Your task to perform on an android device: change the upload size in google photos Image 0: 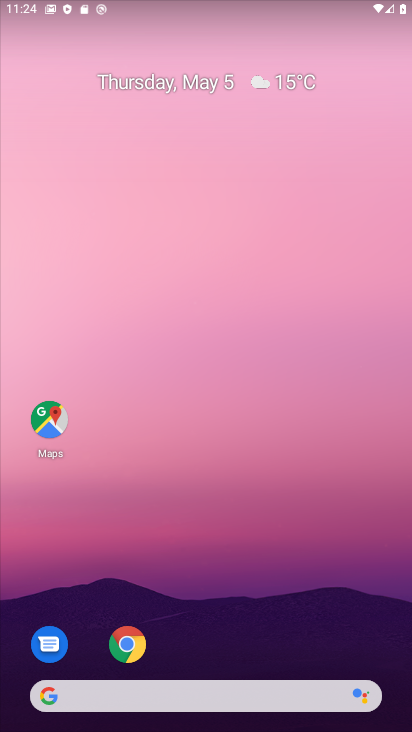
Step 0: drag from (186, 619) to (265, 47)
Your task to perform on an android device: change the upload size in google photos Image 1: 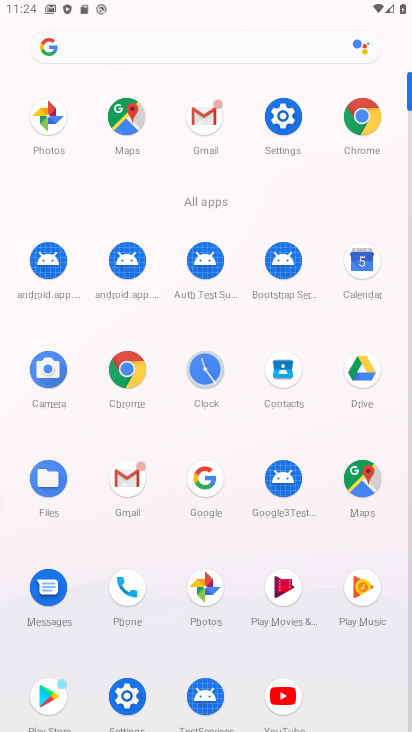
Step 1: click (59, 128)
Your task to perform on an android device: change the upload size in google photos Image 2: 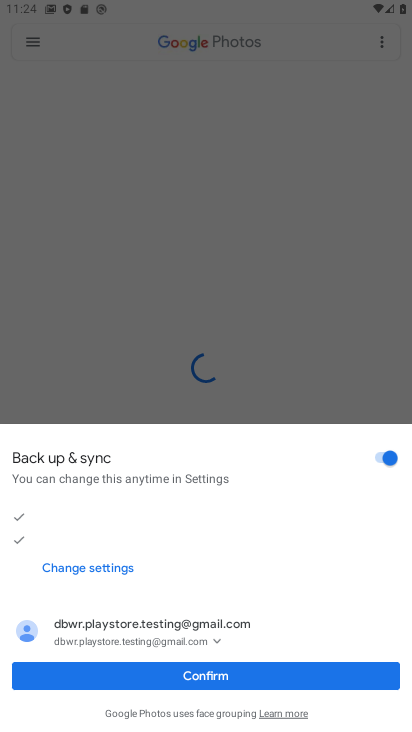
Step 2: click (33, 42)
Your task to perform on an android device: change the upload size in google photos Image 3: 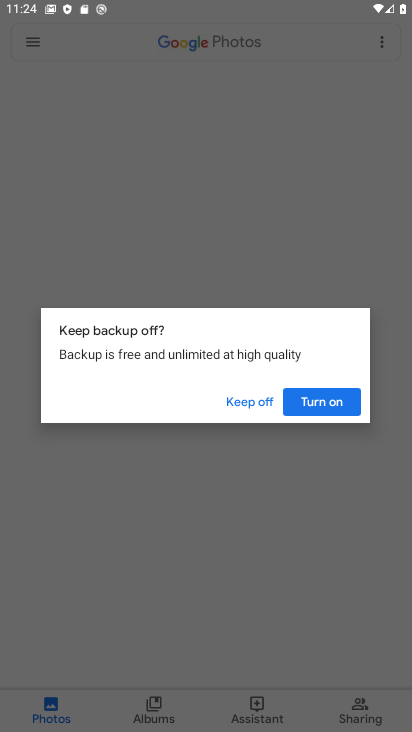
Step 3: click (327, 399)
Your task to perform on an android device: change the upload size in google photos Image 4: 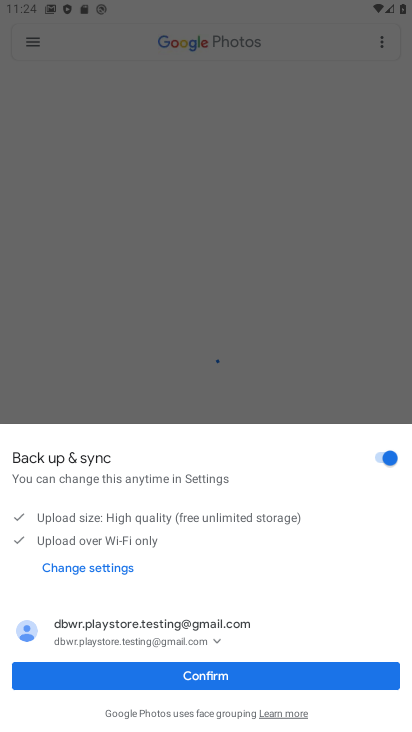
Step 4: click (180, 671)
Your task to perform on an android device: change the upload size in google photos Image 5: 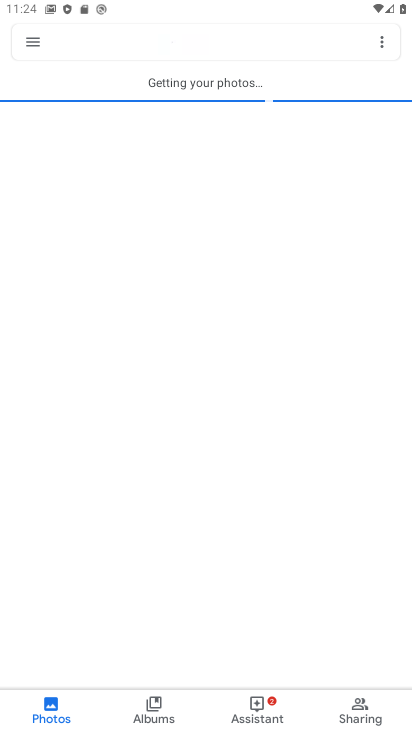
Step 5: click (35, 37)
Your task to perform on an android device: change the upload size in google photos Image 6: 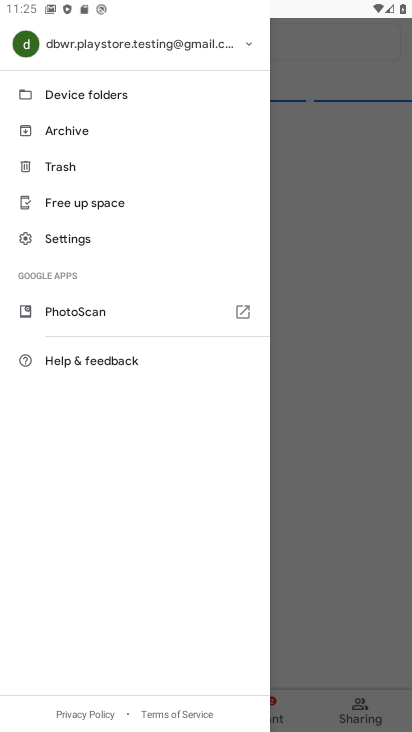
Step 6: click (80, 239)
Your task to perform on an android device: change the upload size in google photos Image 7: 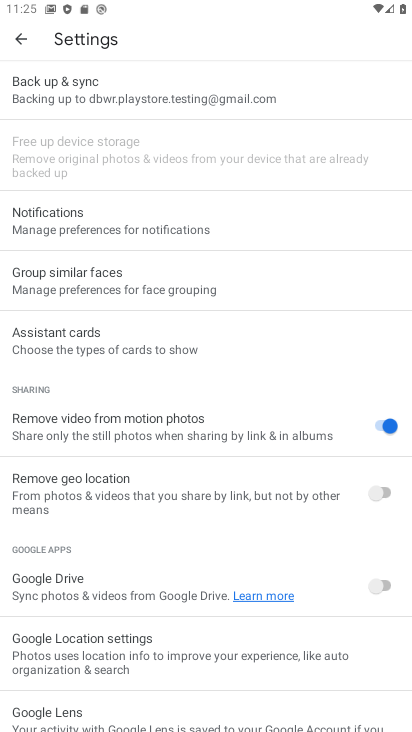
Step 7: click (189, 93)
Your task to perform on an android device: change the upload size in google photos Image 8: 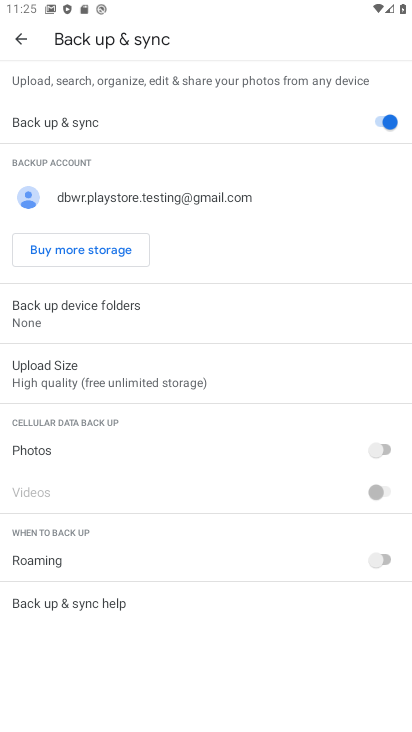
Step 8: click (91, 367)
Your task to perform on an android device: change the upload size in google photos Image 9: 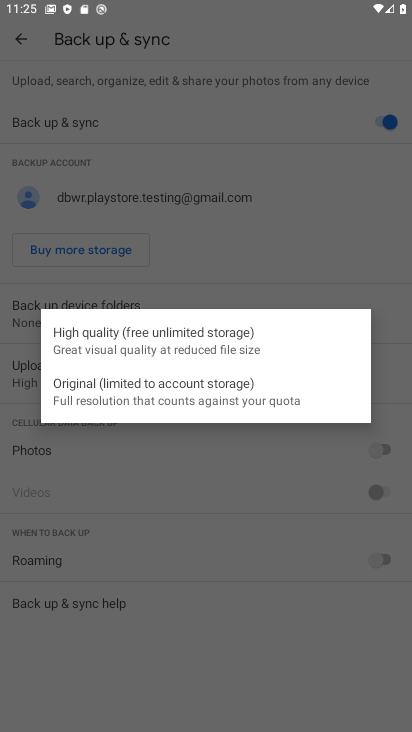
Step 9: click (104, 388)
Your task to perform on an android device: change the upload size in google photos Image 10: 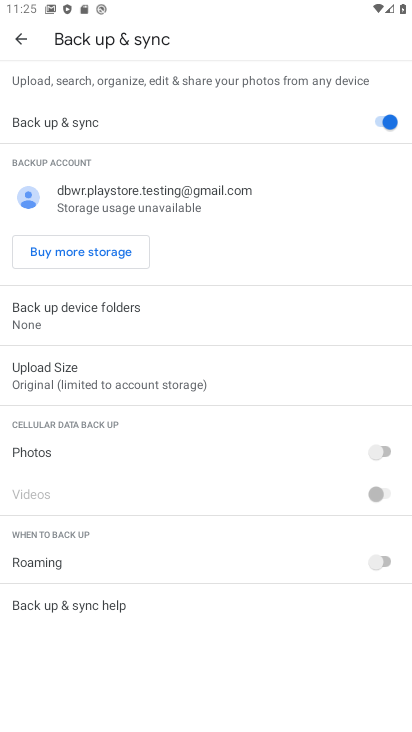
Step 10: task complete